Your task to perform on an android device: Search for sushi restaurants on Maps Image 0: 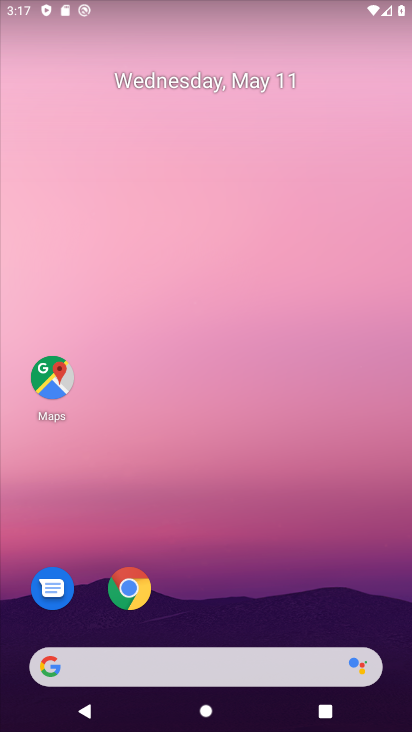
Step 0: drag from (197, 596) to (177, 10)
Your task to perform on an android device: Search for sushi restaurants on Maps Image 1: 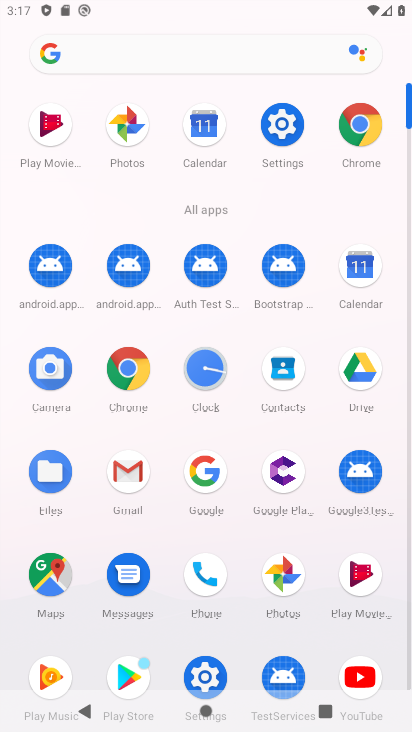
Step 1: click (63, 570)
Your task to perform on an android device: Search for sushi restaurants on Maps Image 2: 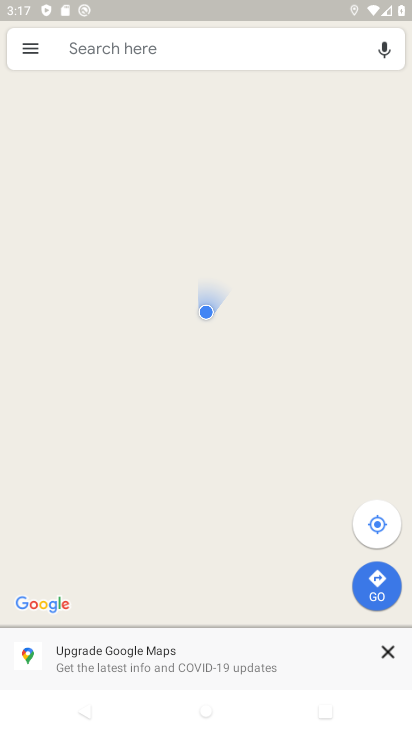
Step 2: click (266, 56)
Your task to perform on an android device: Search for sushi restaurants on Maps Image 3: 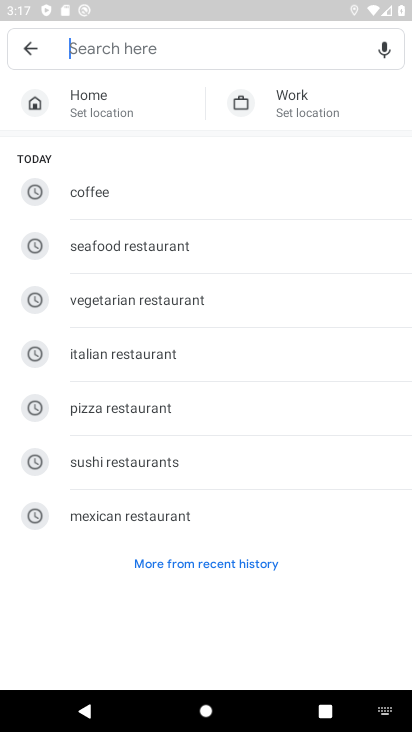
Step 3: type "sushi restaurants"
Your task to perform on an android device: Search for sushi restaurants on Maps Image 4: 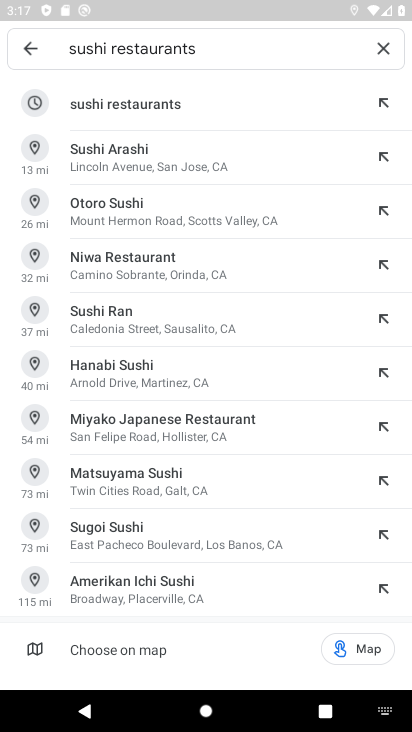
Step 4: click (144, 120)
Your task to perform on an android device: Search for sushi restaurants on Maps Image 5: 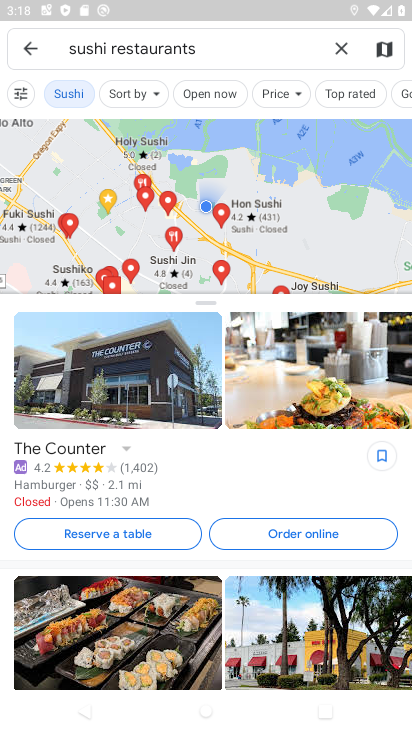
Step 5: task complete